Your task to perform on an android device: What's the weather today? Image 0: 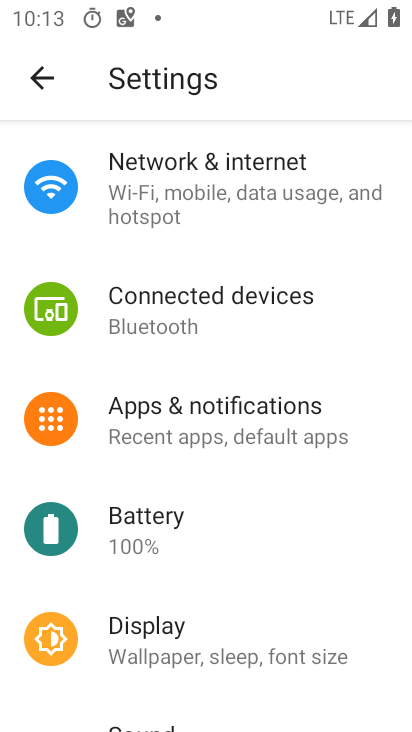
Step 0: press home button
Your task to perform on an android device: What's the weather today? Image 1: 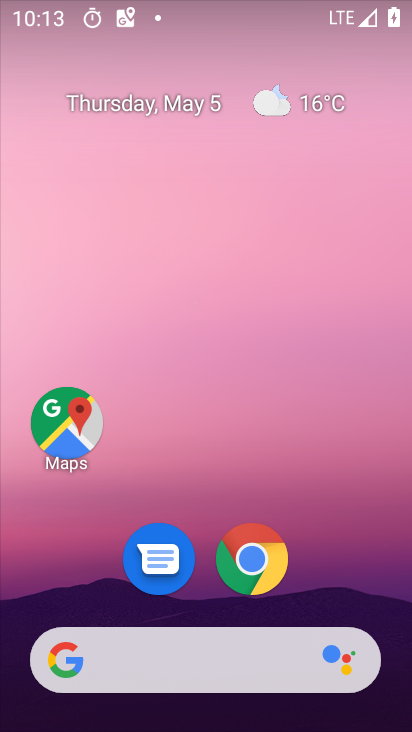
Step 1: drag from (226, 551) to (265, 130)
Your task to perform on an android device: What's the weather today? Image 2: 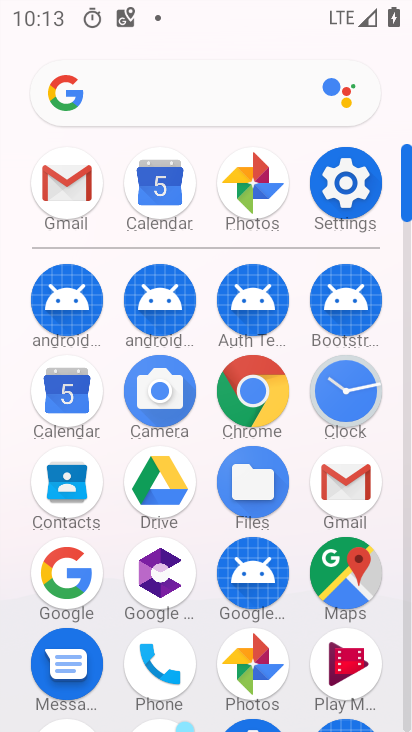
Step 2: click (205, 112)
Your task to perform on an android device: What's the weather today? Image 3: 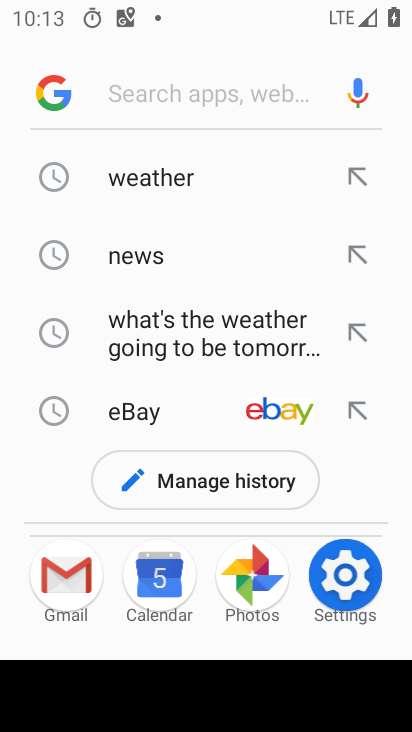
Step 3: click (190, 193)
Your task to perform on an android device: What's the weather today? Image 4: 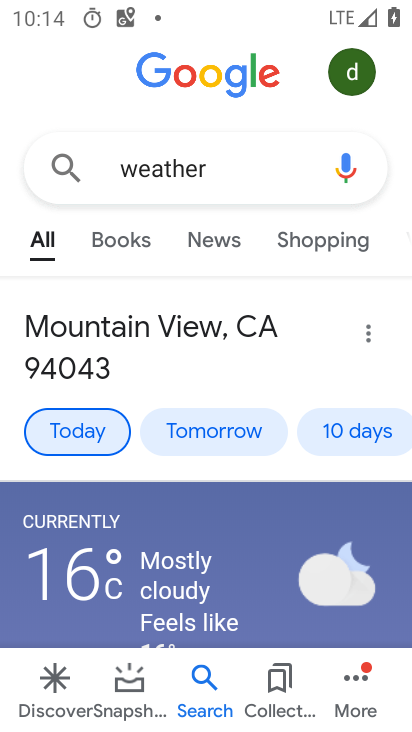
Step 4: task complete